Your task to perform on an android device: turn off javascript in the chrome app Image 0: 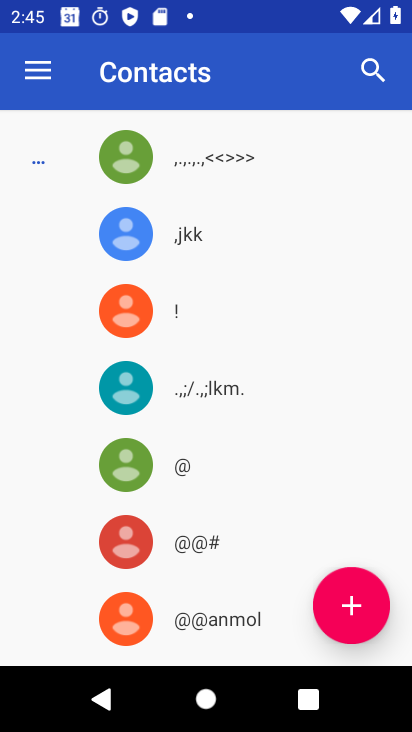
Step 0: press home button
Your task to perform on an android device: turn off javascript in the chrome app Image 1: 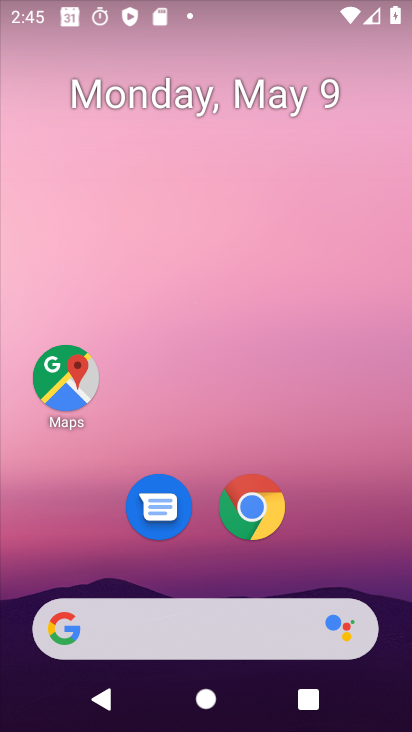
Step 1: click (248, 513)
Your task to perform on an android device: turn off javascript in the chrome app Image 2: 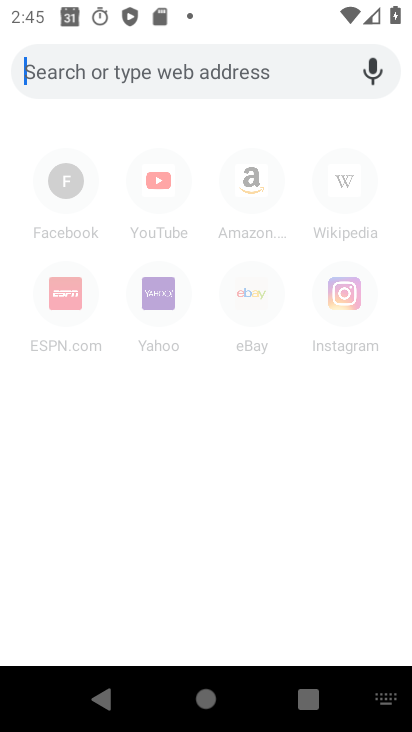
Step 2: click (224, 593)
Your task to perform on an android device: turn off javascript in the chrome app Image 3: 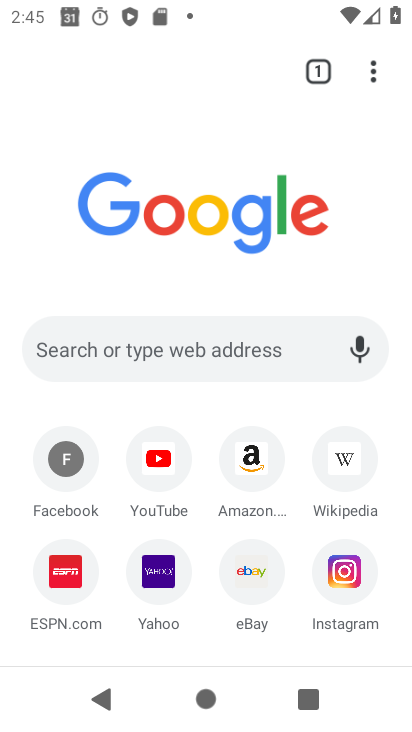
Step 3: click (378, 75)
Your task to perform on an android device: turn off javascript in the chrome app Image 4: 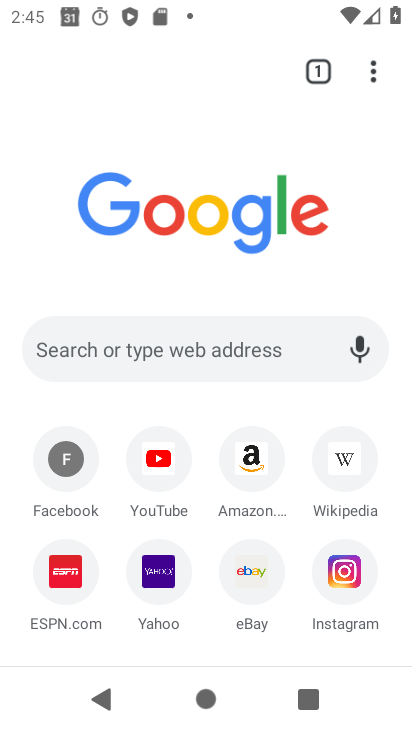
Step 4: click (368, 75)
Your task to perform on an android device: turn off javascript in the chrome app Image 5: 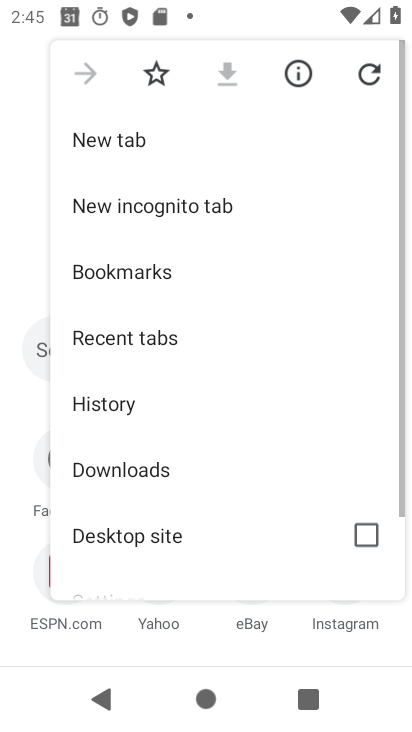
Step 5: click (368, 75)
Your task to perform on an android device: turn off javascript in the chrome app Image 6: 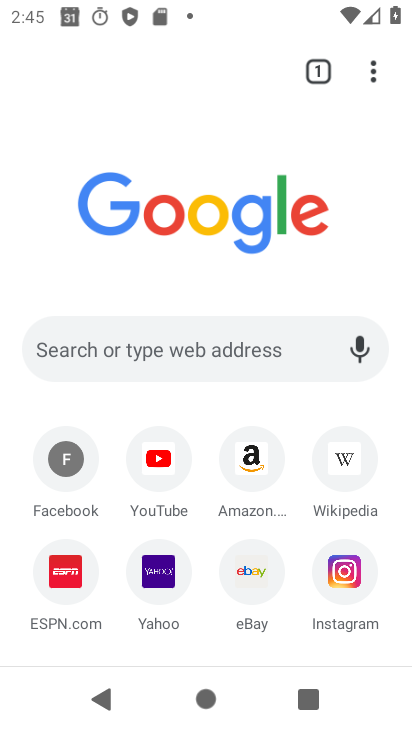
Step 6: drag from (140, 426) to (247, 126)
Your task to perform on an android device: turn off javascript in the chrome app Image 7: 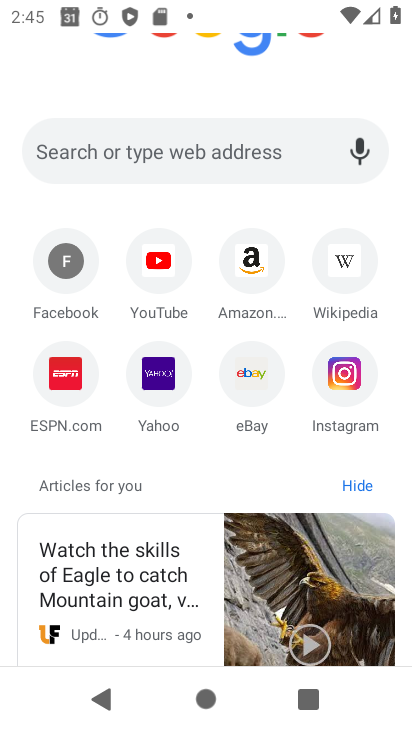
Step 7: click (369, 66)
Your task to perform on an android device: turn off javascript in the chrome app Image 8: 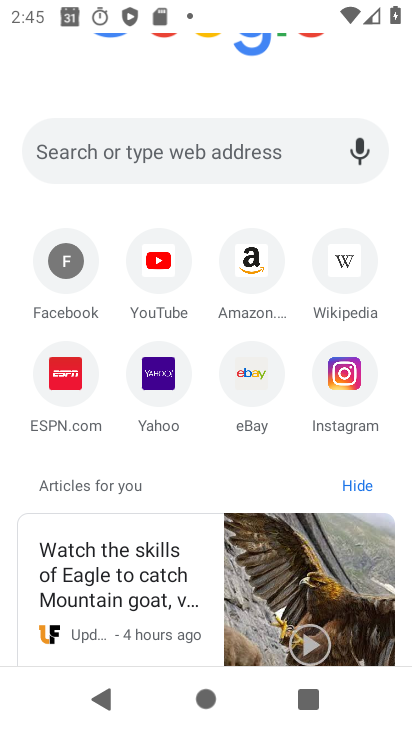
Step 8: drag from (304, 136) to (247, 680)
Your task to perform on an android device: turn off javascript in the chrome app Image 9: 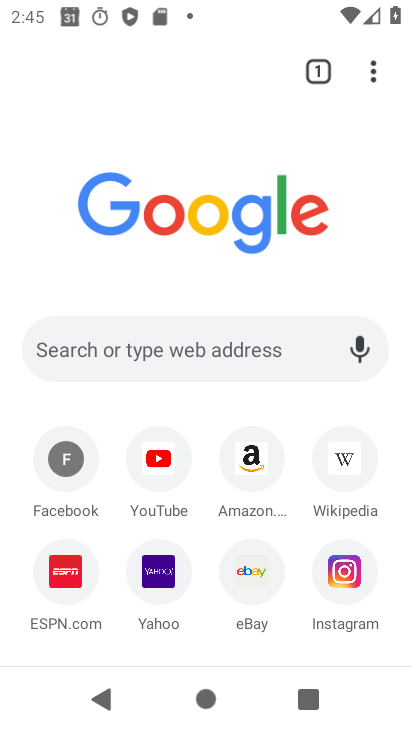
Step 9: click (379, 66)
Your task to perform on an android device: turn off javascript in the chrome app Image 10: 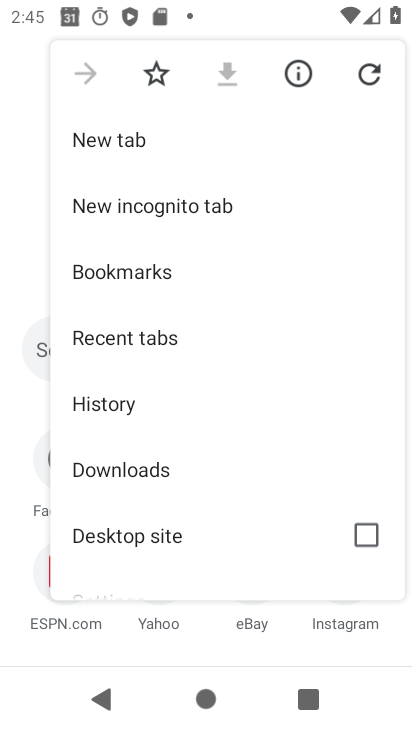
Step 10: drag from (179, 487) to (275, 89)
Your task to perform on an android device: turn off javascript in the chrome app Image 11: 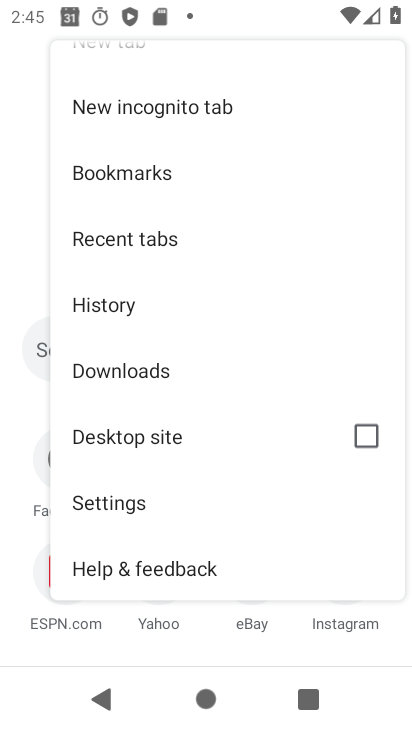
Step 11: click (89, 542)
Your task to perform on an android device: turn off javascript in the chrome app Image 12: 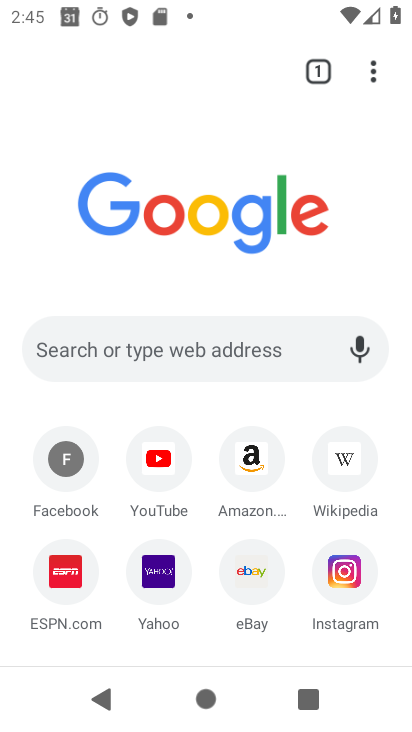
Step 12: drag from (102, 510) to (210, 184)
Your task to perform on an android device: turn off javascript in the chrome app Image 13: 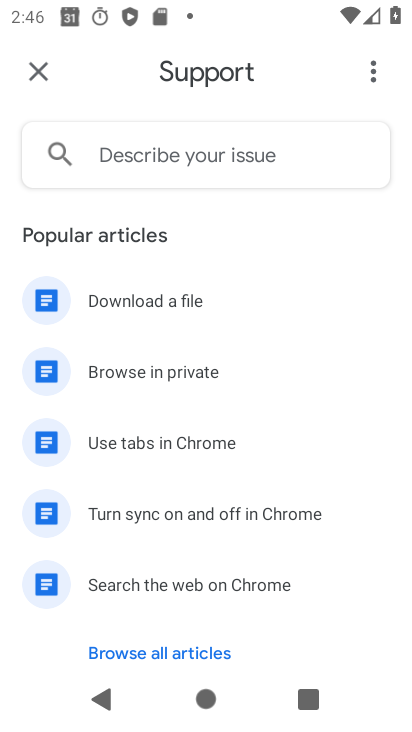
Step 13: click (48, 74)
Your task to perform on an android device: turn off javascript in the chrome app Image 14: 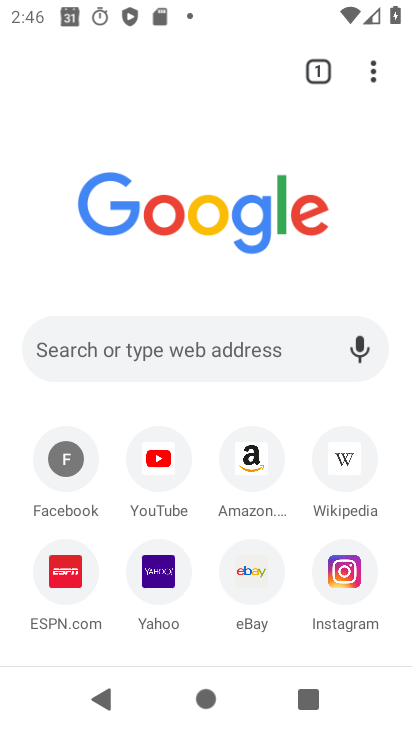
Step 14: click (373, 81)
Your task to perform on an android device: turn off javascript in the chrome app Image 15: 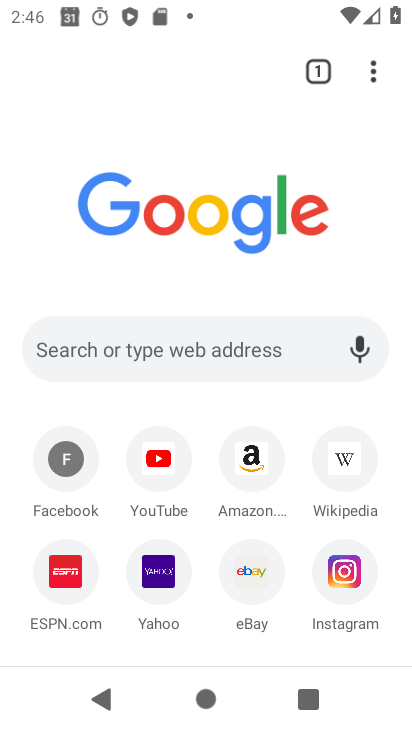
Step 15: click (368, 75)
Your task to perform on an android device: turn off javascript in the chrome app Image 16: 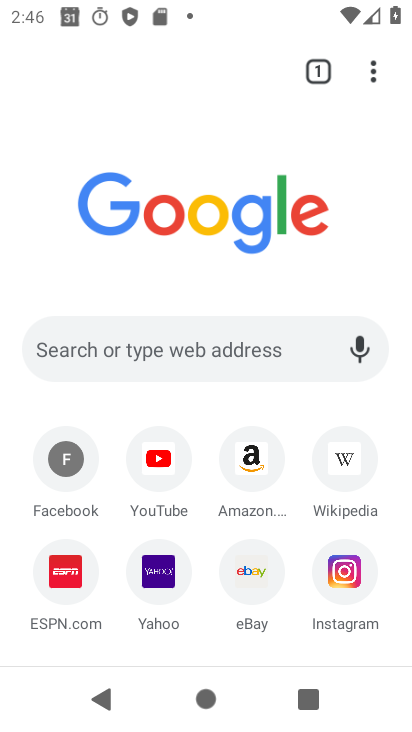
Step 16: click (368, 75)
Your task to perform on an android device: turn off javascript in the chrome app Image 17: 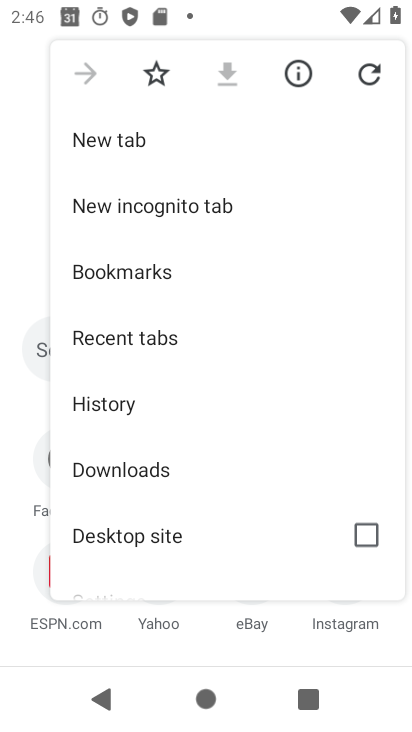
Step 17: drag from (141, 461) to (237, 85)
Your task to perform on an android device: turn off javascript in the chrome app Image 18: 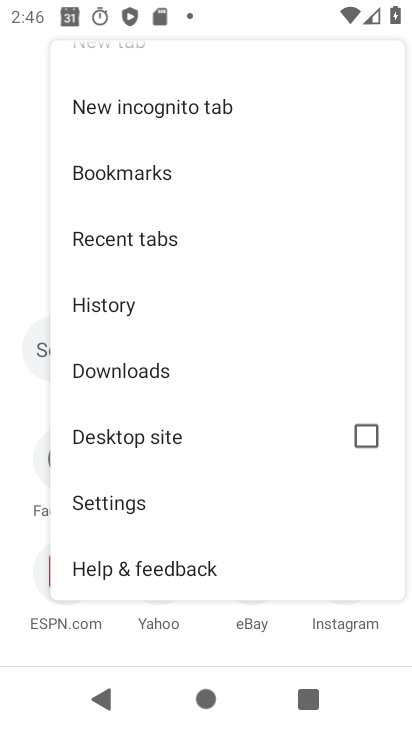
Step 18: click (98, 508)
Your task to perform on an android device: turn off javascript in the chrome app Image 19: 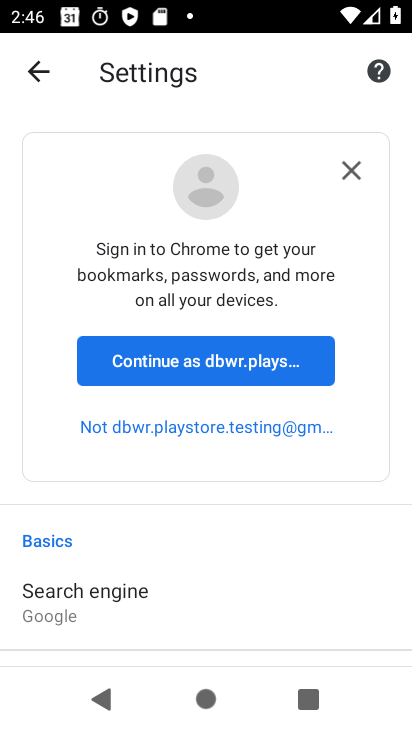
Step 19: drag from (215, 363) to (273, 135)
Your task to perform on an android device: turn off javascript in the chrome app Image 20: 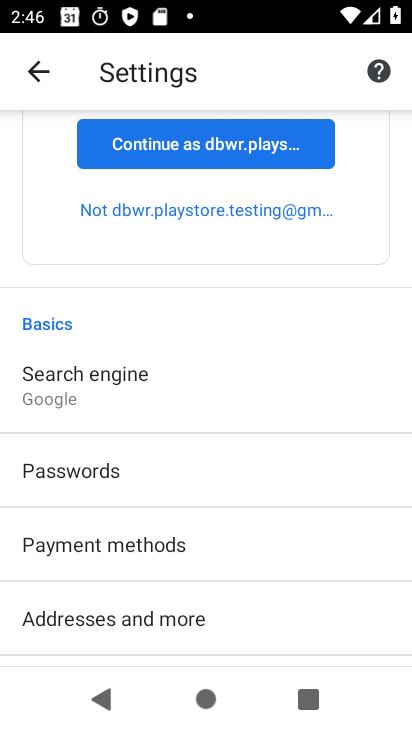
Step 20: drag from (227, 552) to (321, 220)
Your task to perform on an android device: turn off javascript in the chrome app Image 21: 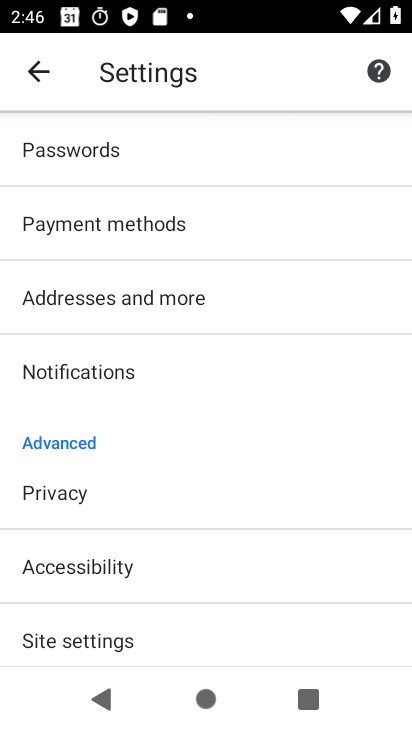
Step 21: drag from (260, 528) to (332, 255)
Your task to perform on an android device: turn off javascript in the chrome app Image 22: 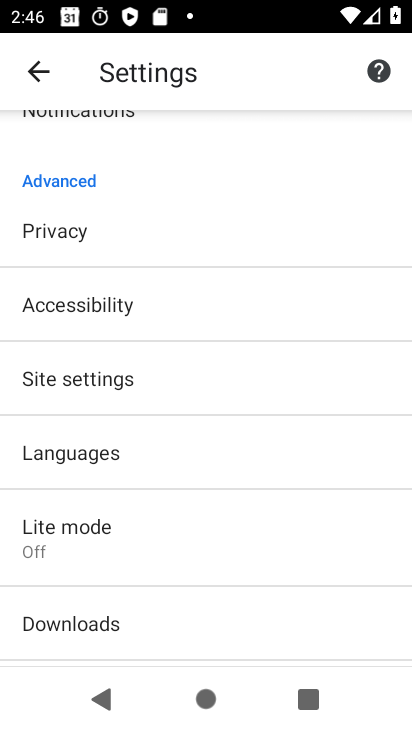
Step 22: click (178, 379)
Your task to perform on an android device: turn off javascript in the chrome app Image 23: 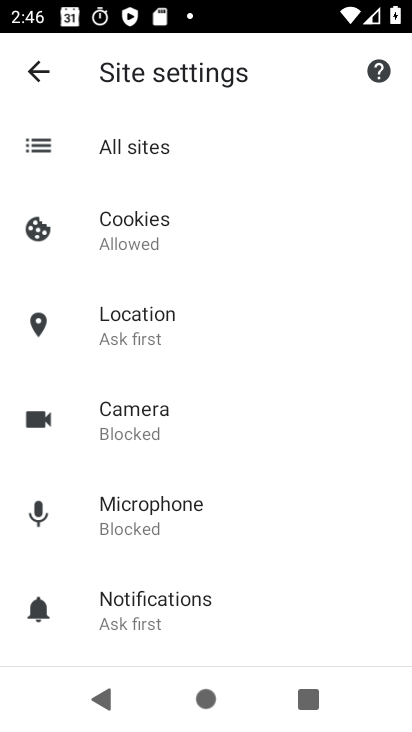
Step 23: drag from (262, 313) to (302, 186)
Your task to perform on an android device: turn off javascript in the chrome app Image 24: 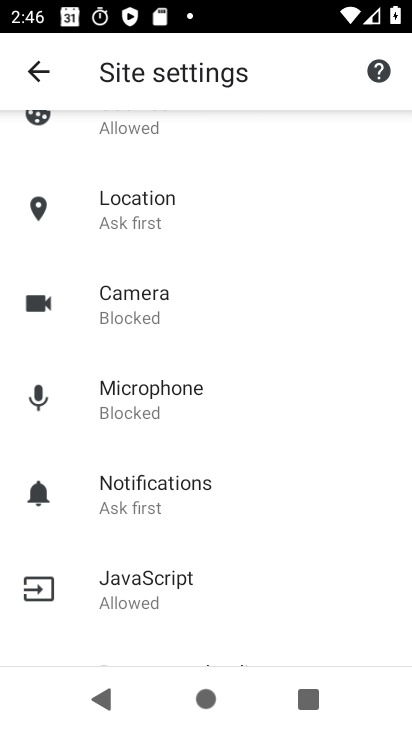
Step 24: drag from (215, 605) to (236, 481)
Your task to perform on an android device: turn off javascript in the chrome app Image 25: 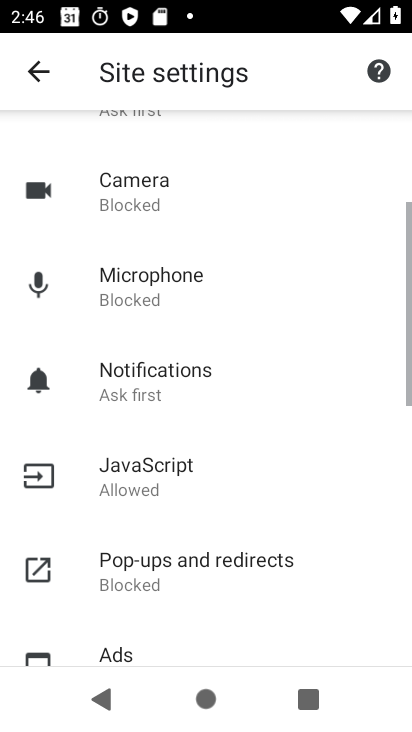
Step 25: drag from (225, 529) to (259, 446)
Your task to perform on an android device: turn off javascript in the chrome app Image 26: 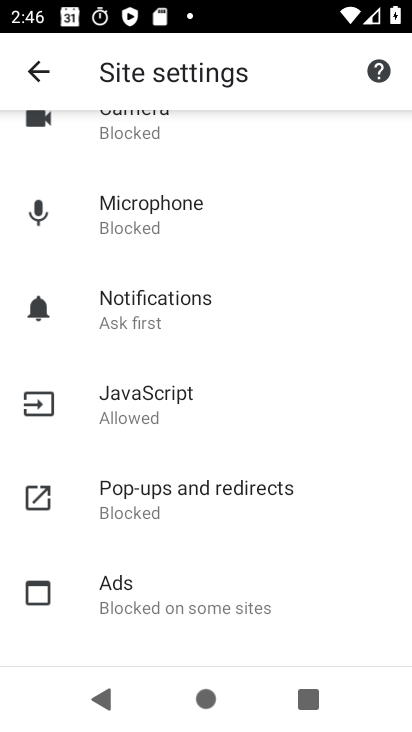
Step 26: click (268, 428)
Your task to perform on an android device: turn off javascript in the chrome app Image 27: 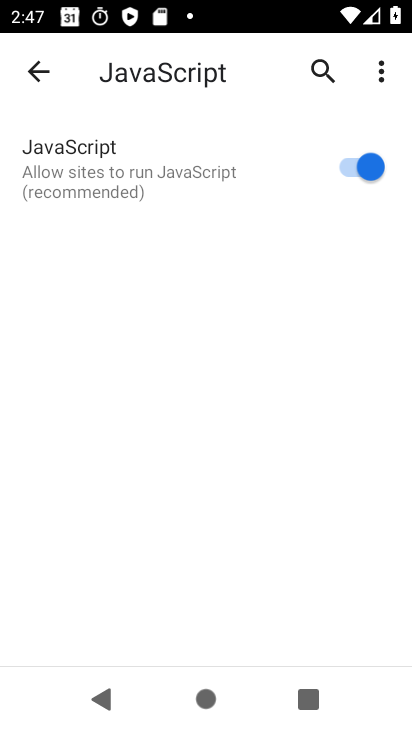
Step 27: click (115, 389)
Your task to perform on an android device: turn off javascript in the chrome app Image 28: 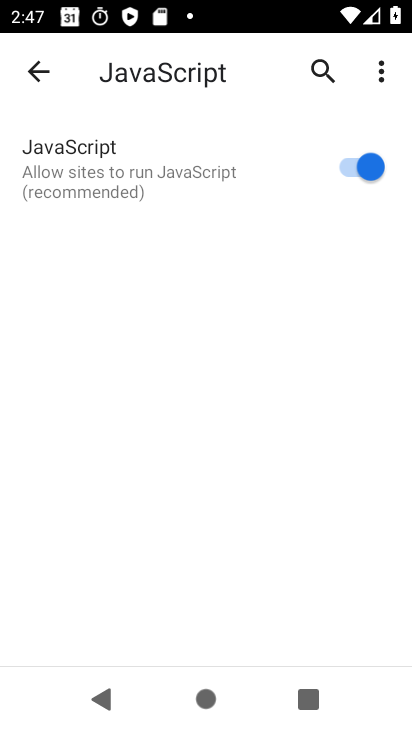
Step 28: click (352, 165)
Your task to perform on an android device: turn off javascript in the chrome app Image 29: 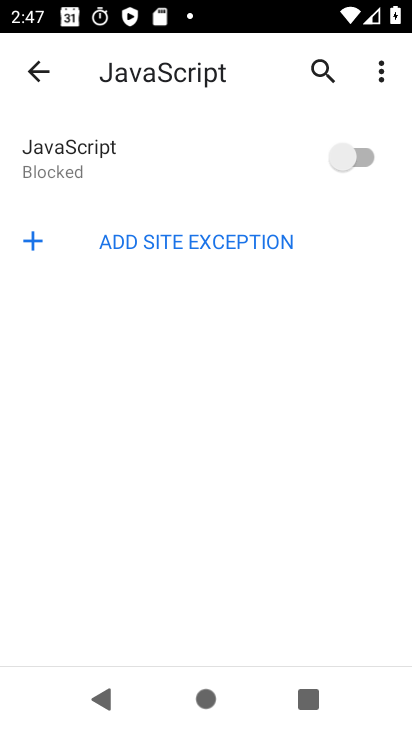
Step 29: task complete